Your task to perform on an android device: turn off location history Image 0: 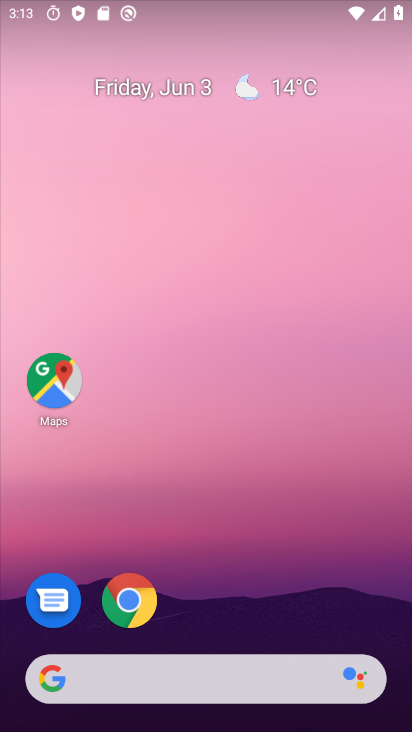
Step 0: drag from (259, 579) to (205, 40)
Your task to perform on an android device: turn off location history Image 1: 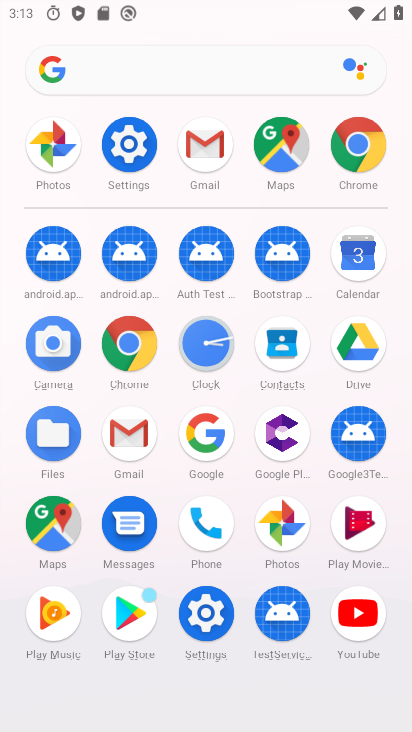
Step 1: click (207, 608)
Your task to perform on an android device: turn off location history Image 2: 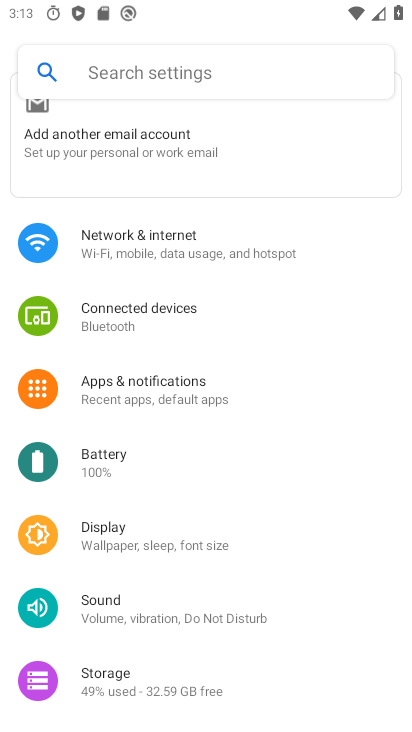
Step 2: drag from (203, 573) to (246, 215)
Your task to perform on an android device: turn off location history Image 3: 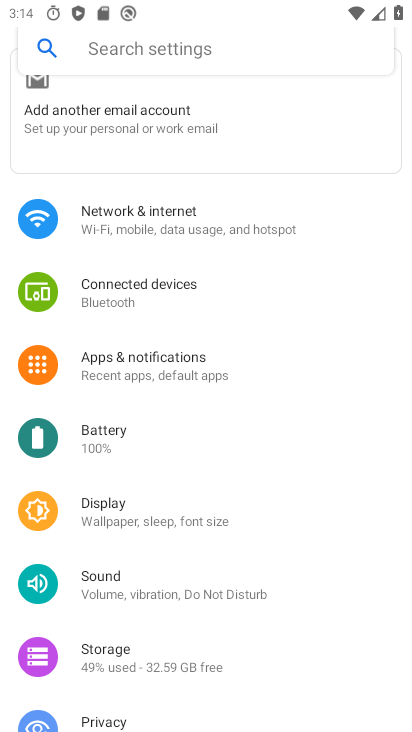
Step 3: drag from (178, 620) to (239, 214)
Your task to perform on an android device: turn off location history Image 4: 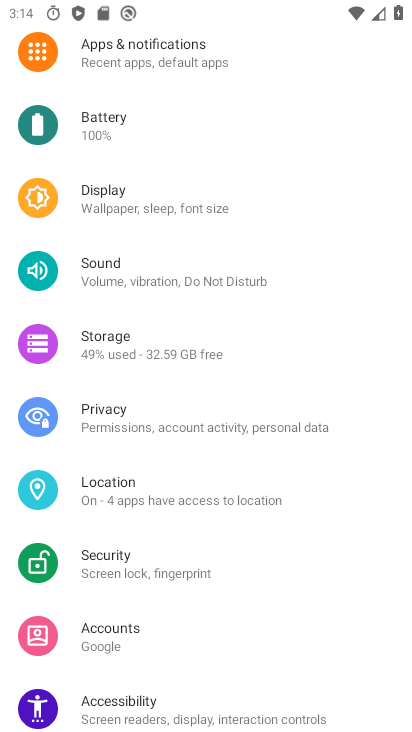
Step 4: click (145, 482)
Your task to perform on an android device: turn off location history Image 5: 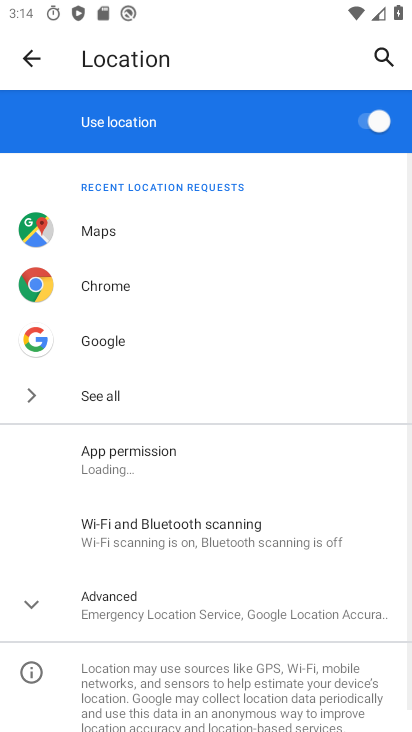
Step 5: click (360, 119)
Your task to perform on an android device: turn off location history Image 6: 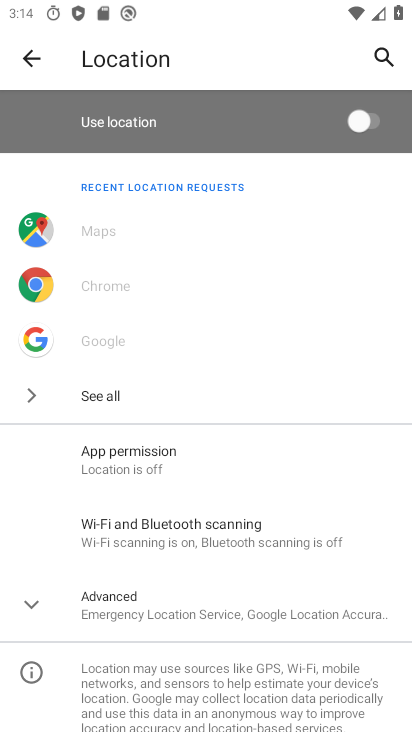
Step 6: click (37, 610)
Your task to perform on an android device: turn off location history Image 7: 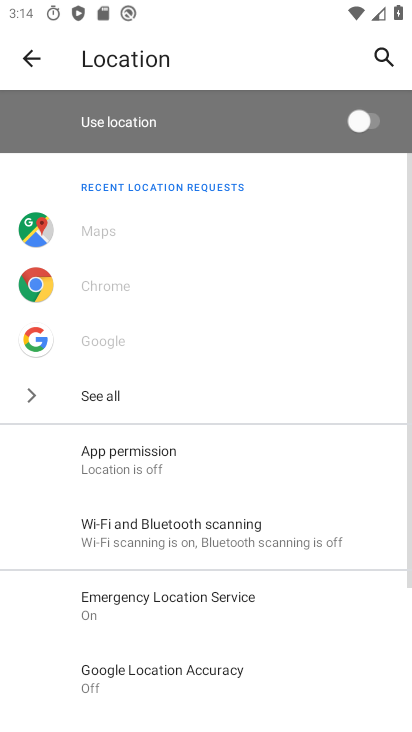
Step 7: drag from (281, 574) to (305, 165)
Your task to perform on an android device: turn off location history Image 8: 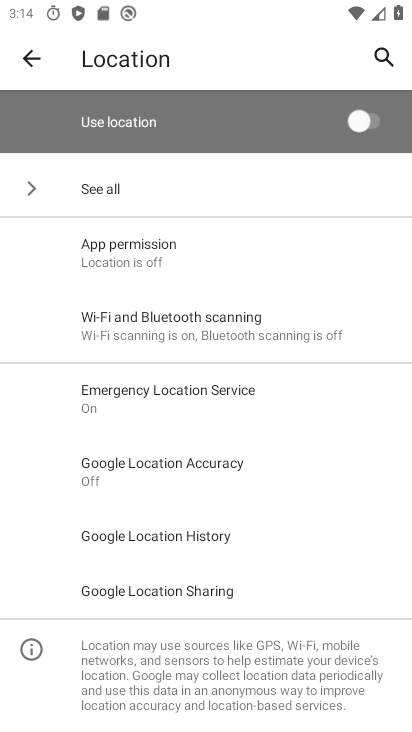
Step 8: click (198, 536)
Your task to perform on an android device: turn off location history Image 9: 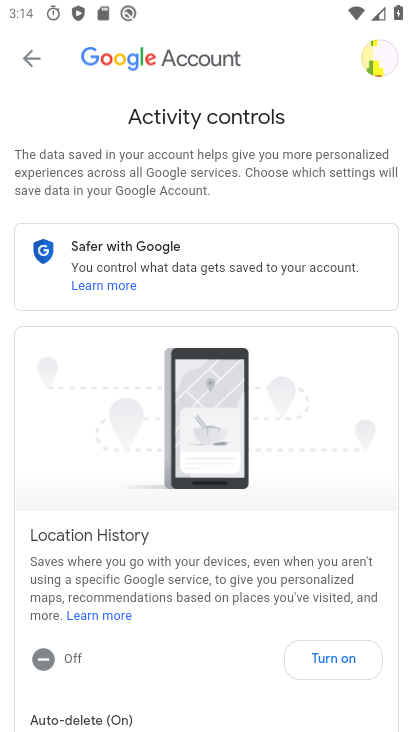
Step 9: task complete